Your task to perform on an android device: Open Android settings Image 0: 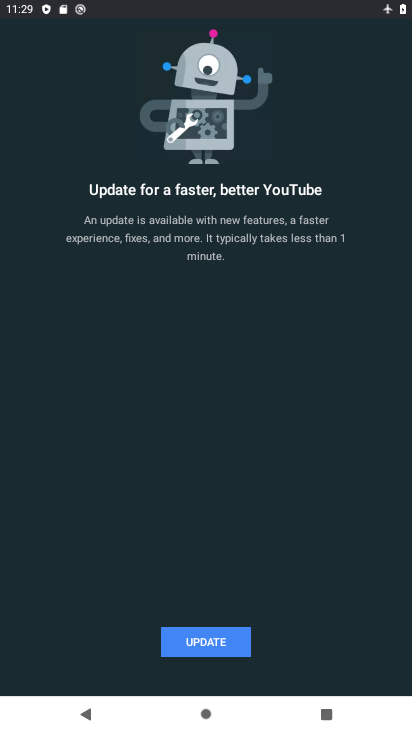
Step 0: press home button
Your task to perform on an android device: Open Android settings Image 1: 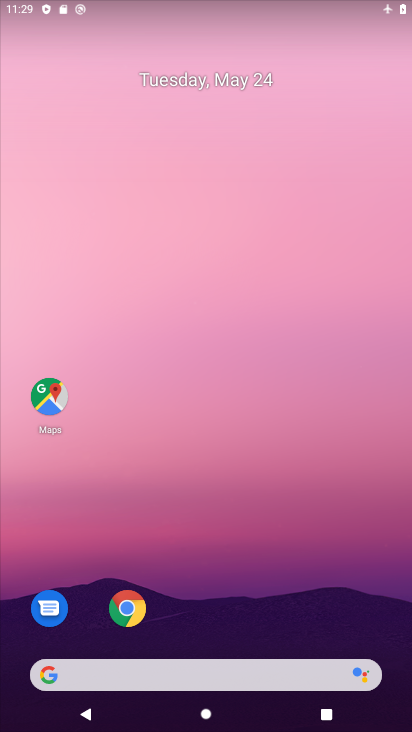
Step 1: drag from (260, 610) to (220, 119)
Your task to perform on an android device: Open Android settings Image 2: 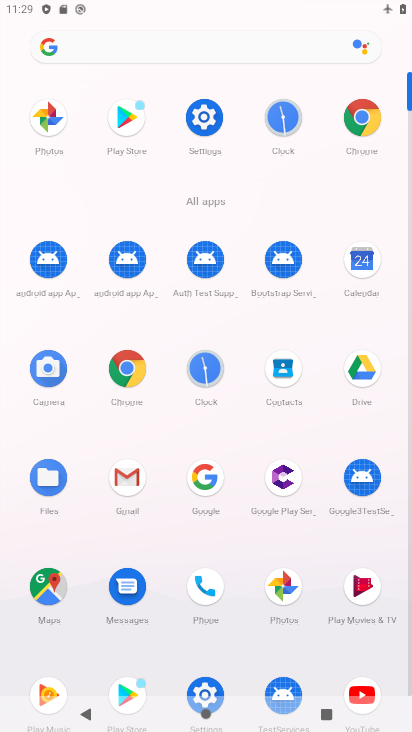
Step 2: click (202, 139)
Your task to perform on an android device: Open Android settings Image 3: 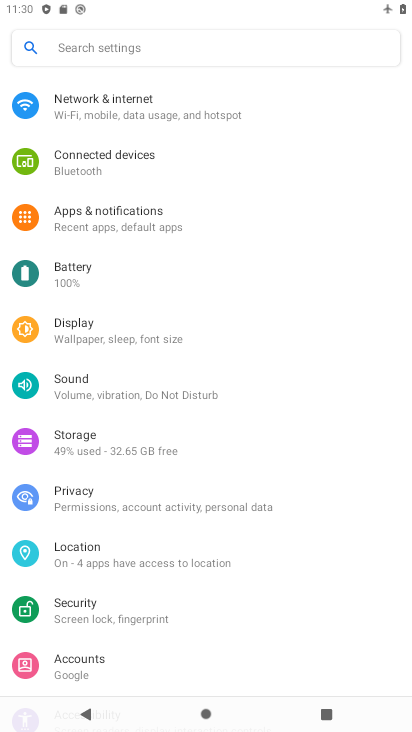
Step 3: task complete